Your task to perform on an android device: turn on translation in the chrome app Image 0: 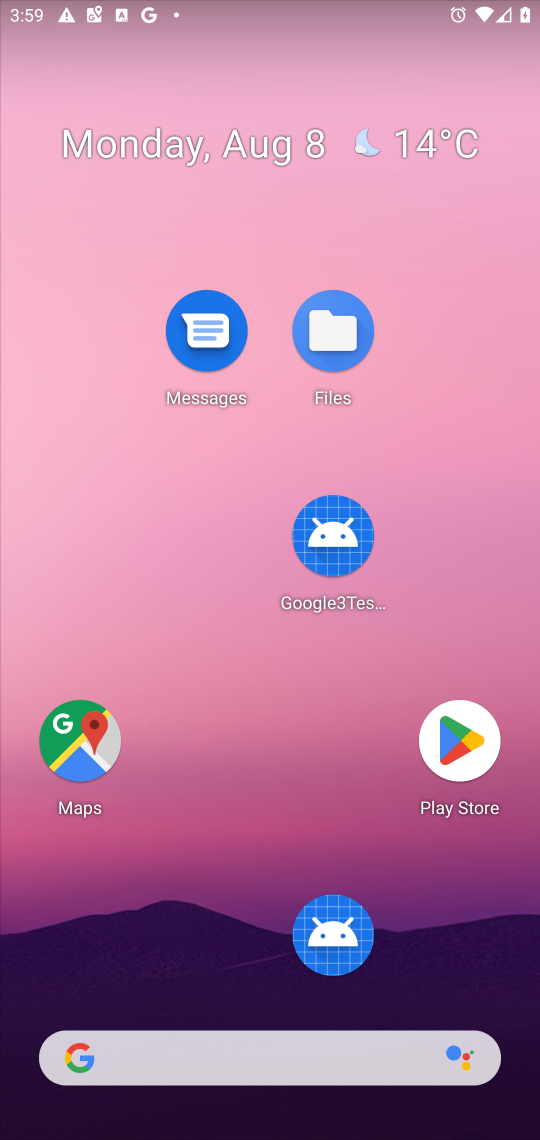
Step 0: drag from (195, 1065) to (103, 9)
Your task to perform on an android device: turn on translation in the chrome app Image 1: 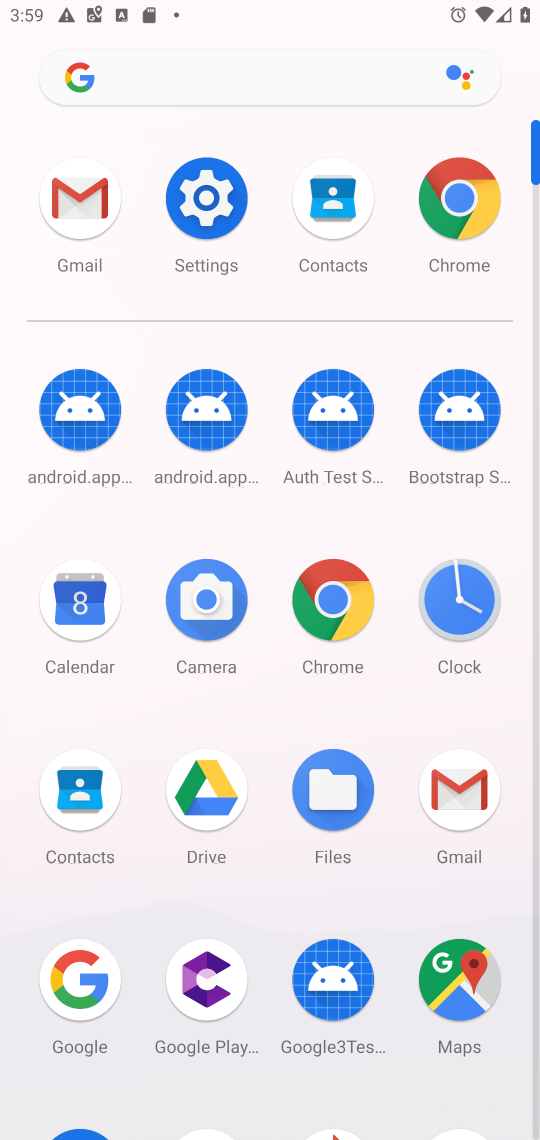
Step 1: click (355, 599)
Your task to perform on an android device: turn on translation in the chrome app Image 2: 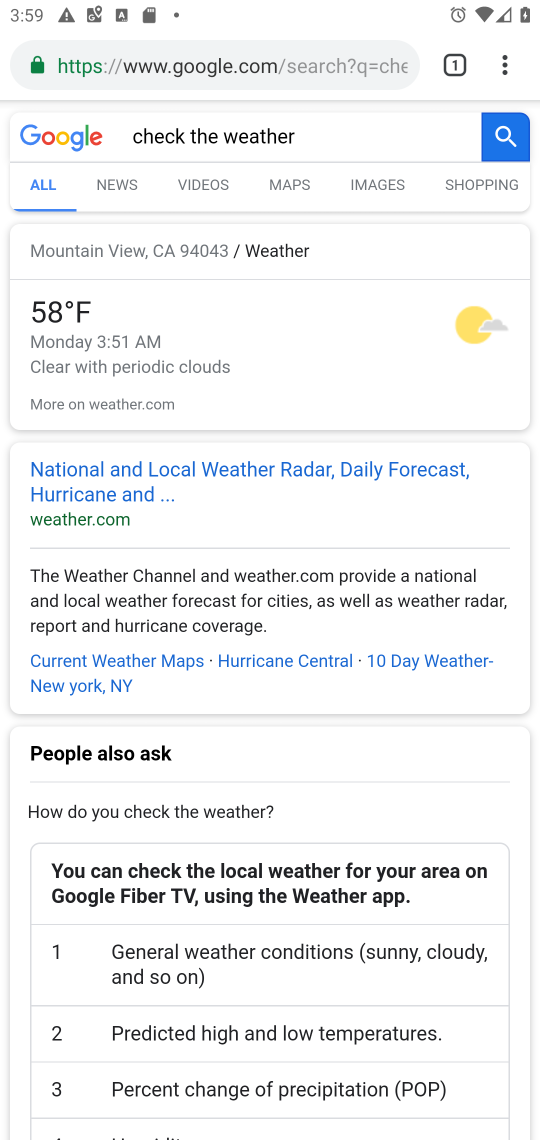
Step 2: click (512, 47)
Your task to perform on an android device: turn on translation in the chrome app Image 3: 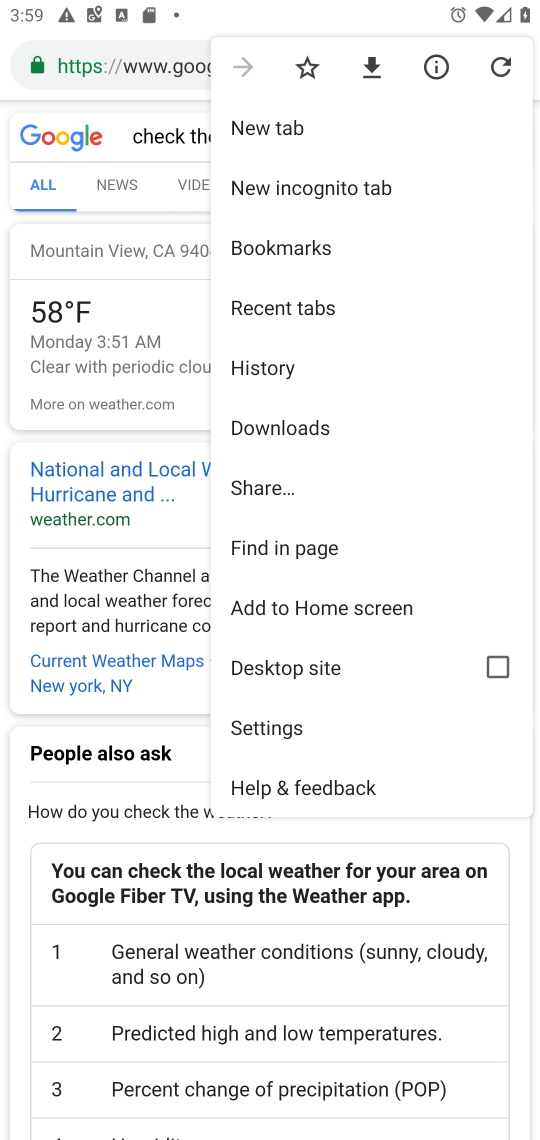
Step 3: click (269, 723)
Your task to perform on an android device: turn on translation in the chrome app Image 4: 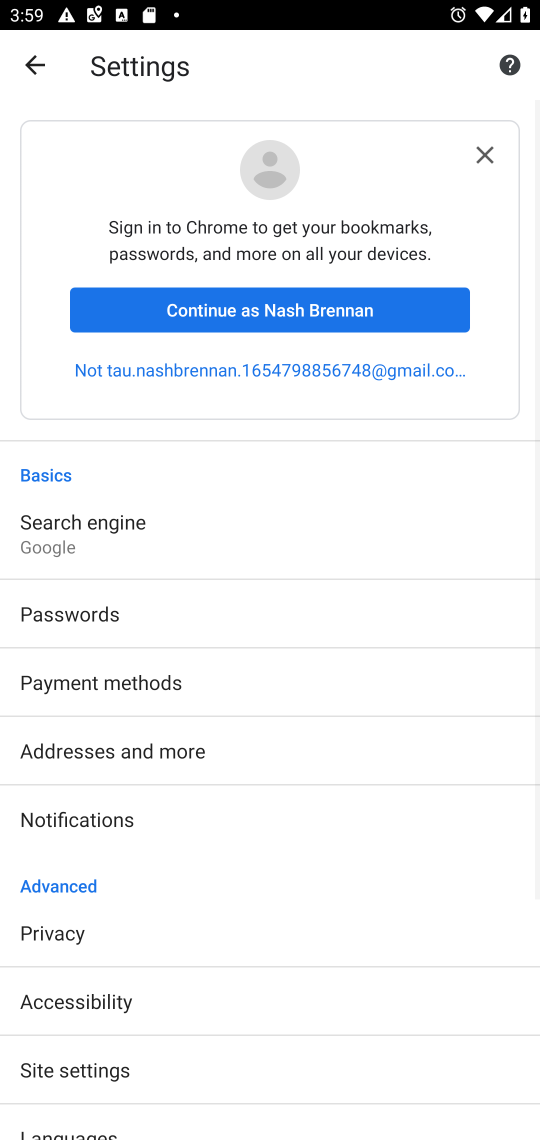
Step 4: click (123, 1124)
Your task to perform on an android device: turn on translation in the chrome app Image 5: 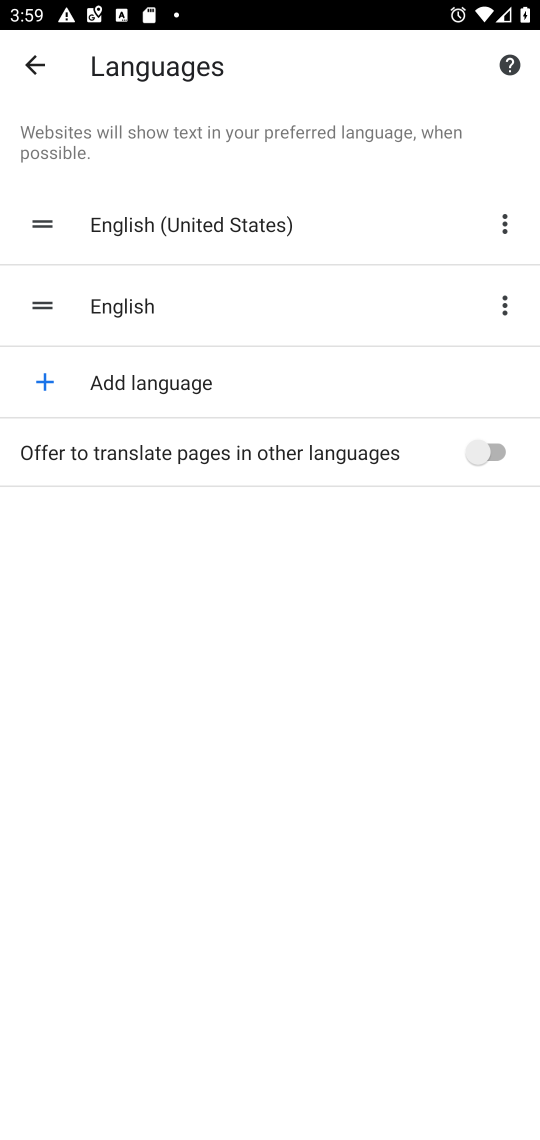
Step 5: click (494, 441)
Your task to perform on an android device: turn on translation in the chrome app Image 6: 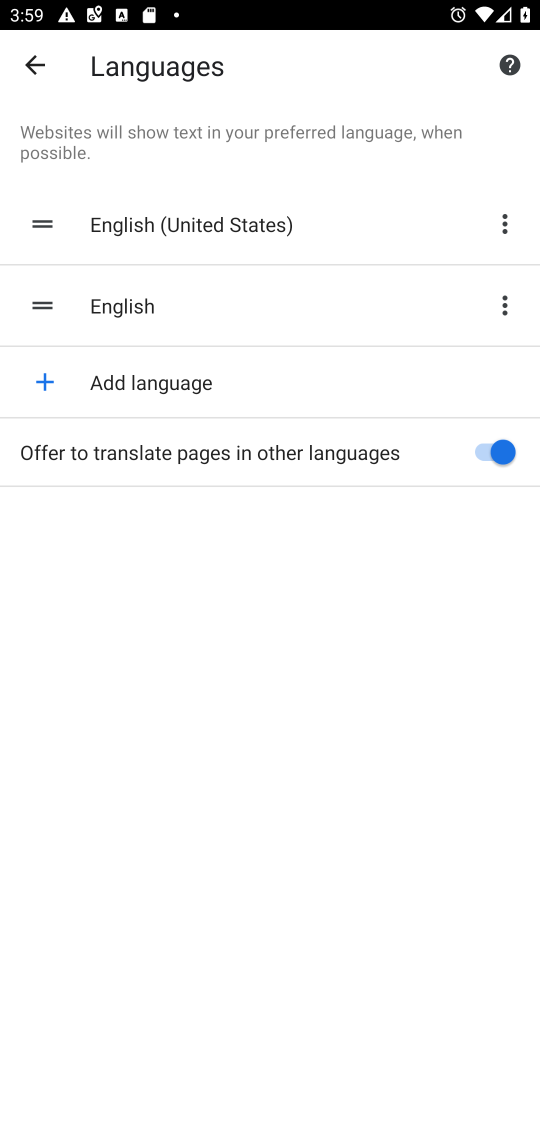
Step 6: task complete